Your task to perform on an android device: Open the stopwatch Image 0: 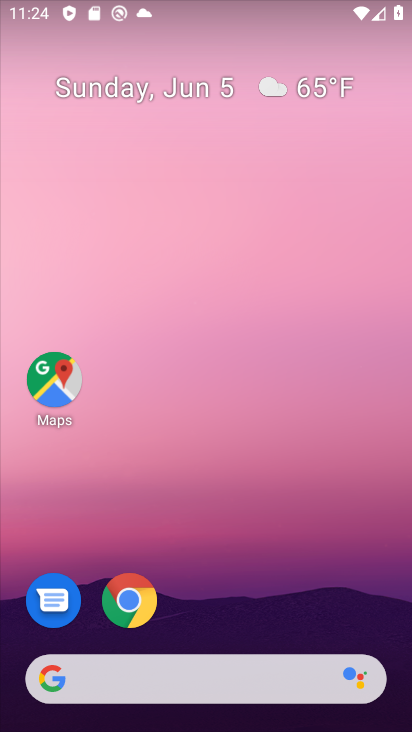
Step 0: drag from (273, 700) to (166, 135)
Your task to perform on an android device: Open the stopwatch Image 1: 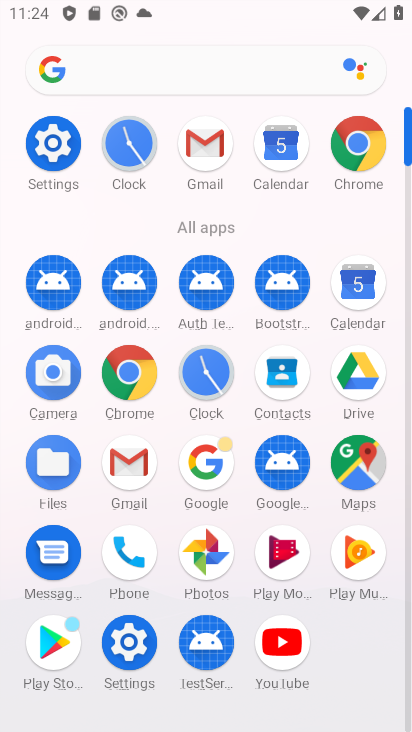
Step 1: click (220, 380)
Your task to perform on an android device: Open the stopwatch Image 2: 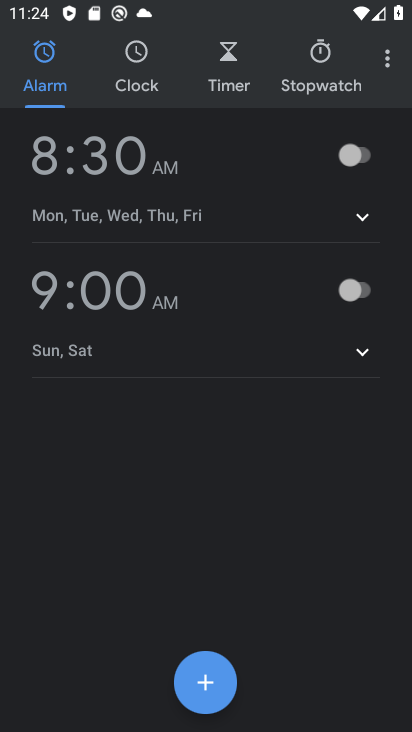
Step 2: click (336, 94)
Your task to perform on an android device: Open the stopwatch Image 3: 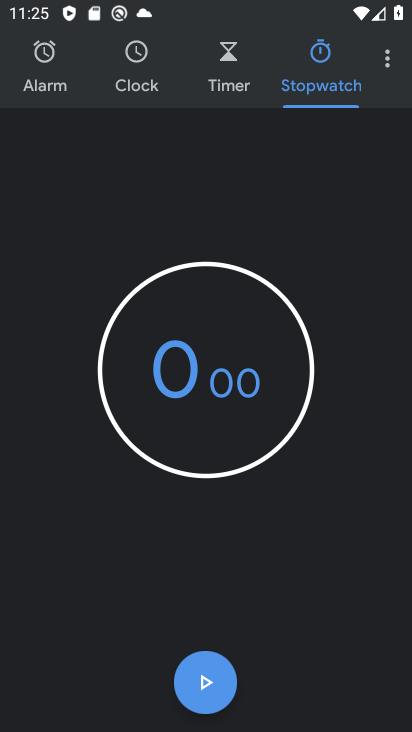
Step 3: click (202, 691)
Your task to perform on an android device: Open the stopwatch Image 4: 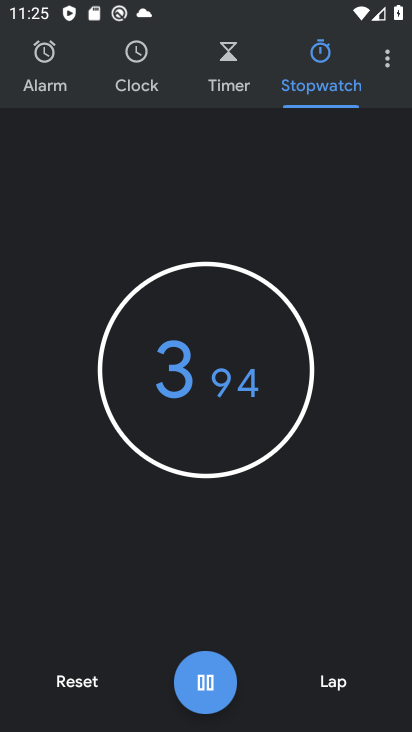
Step 4: click (190, 700)
Your task to perform on an android device: Open the stopwatch Image 5: 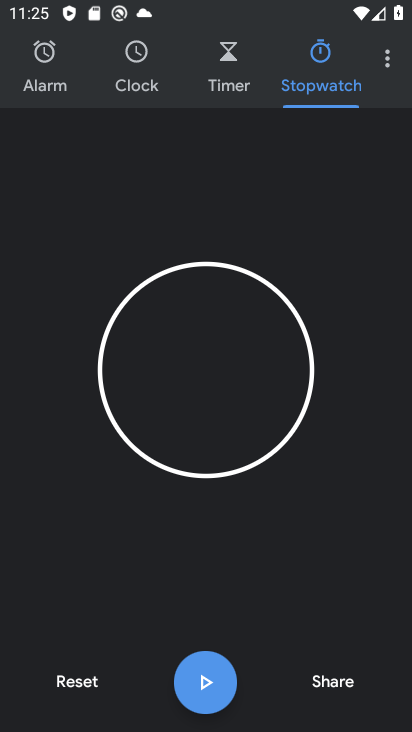
Step 5: task complete